Your task to perform on an android device: Open settings Image 0: 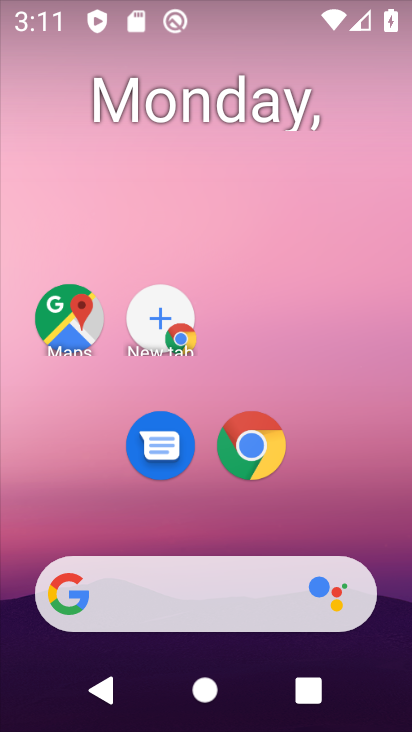
Step 0: press home button
Your task to perform on an android device: Open settings Image 1: 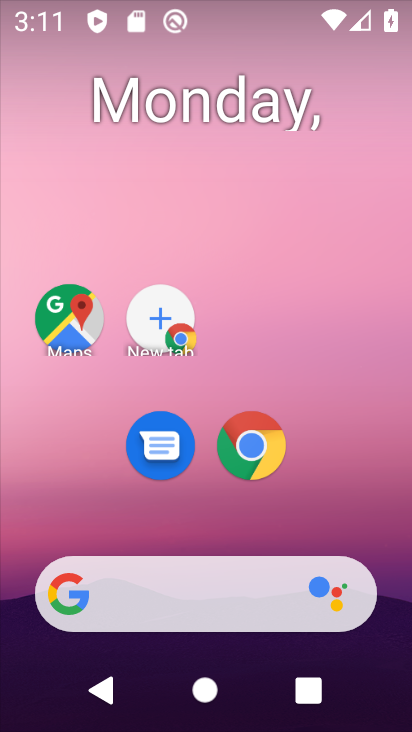
Step 1: drag from (218, 515) to (212, 27)
Your task to perform on an android device: Open settings Image 2: 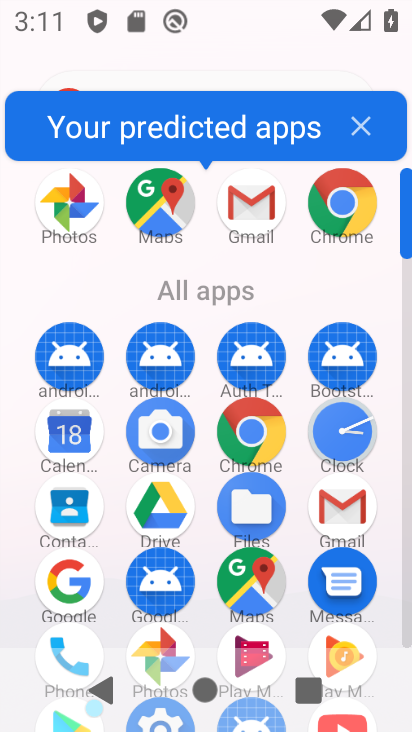
Step 2: drag from (200, 545) to (195, 121)
Your task to perform on an android device: Open settings Image 3: 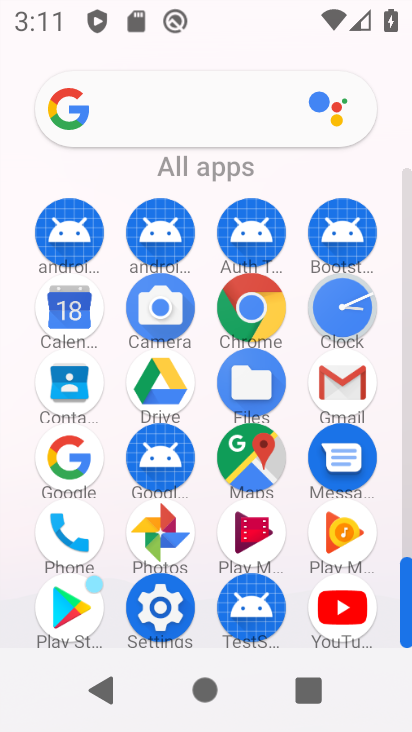
Step 3: click (153, 607)
Your task to perform on an android device: Open settings Image 4: 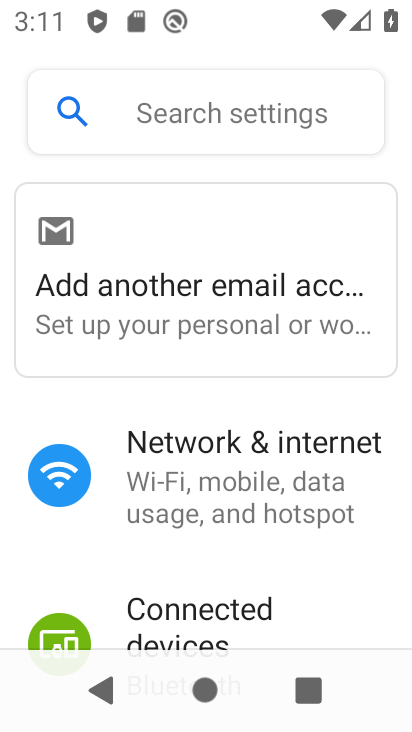
Step 4: drag from (242, 424) to (242, 259)
Your task to perform on an android device: Open settings Image 5: 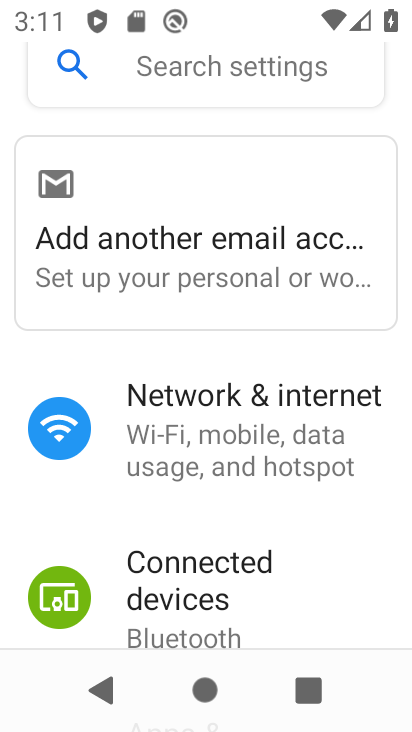
Step 5: drag from (284, 598) to (308, 89)
Your task to perform on an android device: Open settings Image 6: 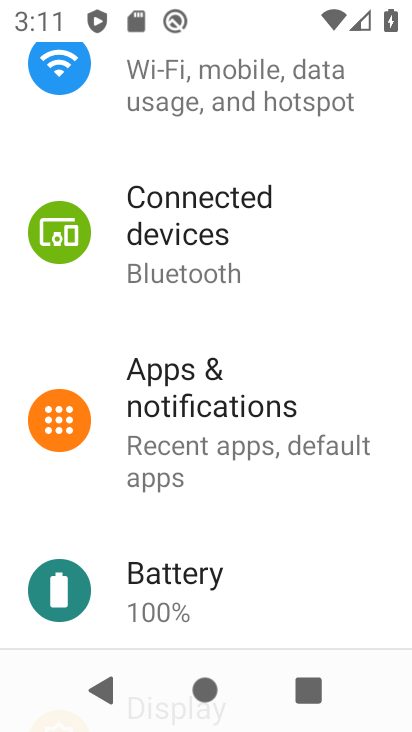
Step 6: drag from (220, 559) to (253, 86)
Your task to perform on an android device: Open settings Image 7: 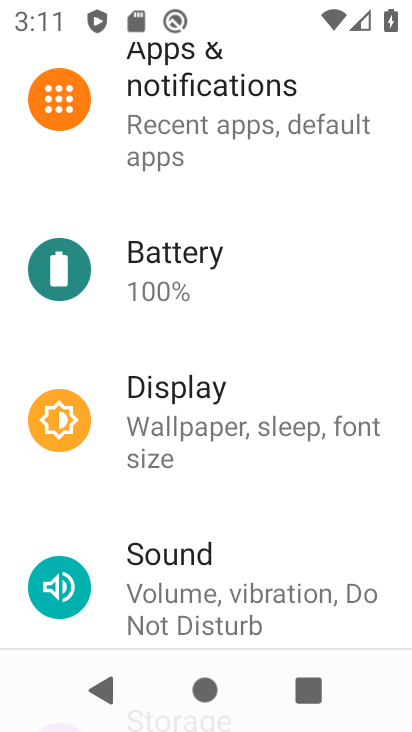
Step 7: drag from (242, 485) to (258, 79)
Your task to perform on an android device: Open settings Image 8: 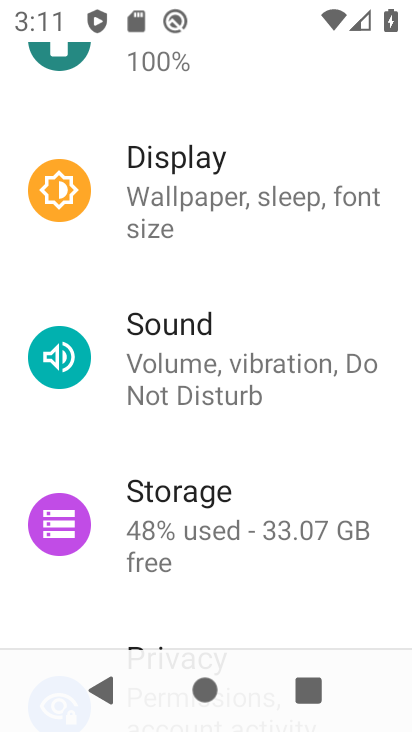
Step 8: drag from (228, 591) to (240, 81)
Your task to perform on an android device: Open settings Image 9: 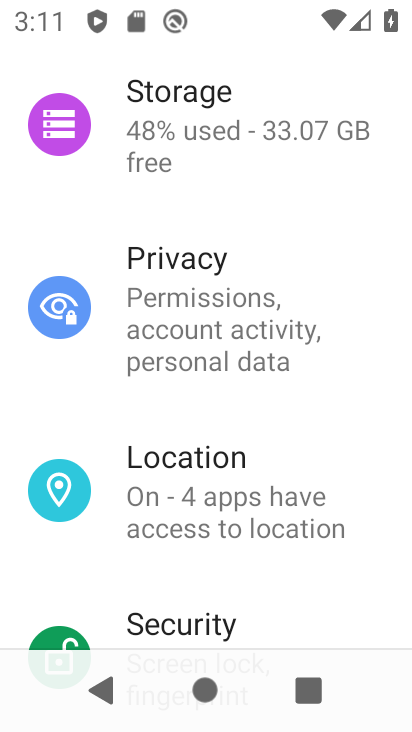
Step 9: click (243, 334)
Your task to perform on an android device: Open settings Image 10: 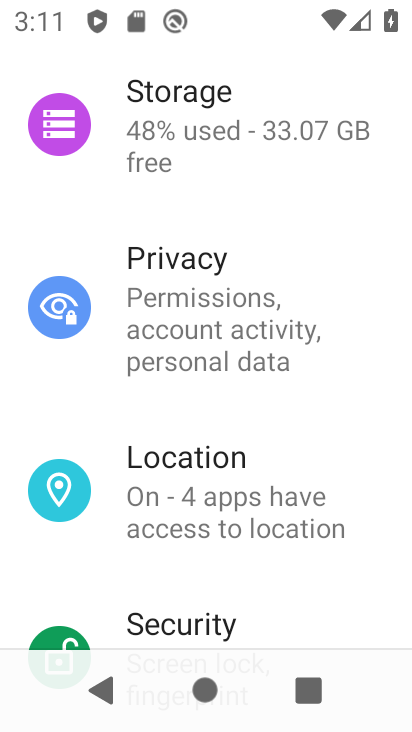
Step 10: task complete